Your task to perform on an android device: check battery use Image 0: 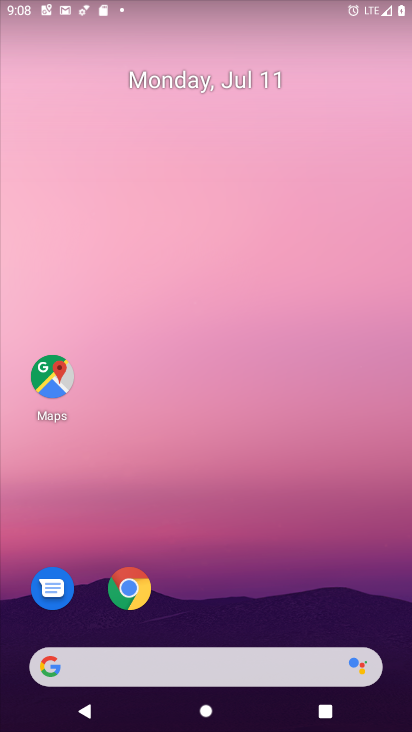
Step 0: drag from (165, 670) to (313, 171)
Your task to perform on an android device: check battery use Image 1: 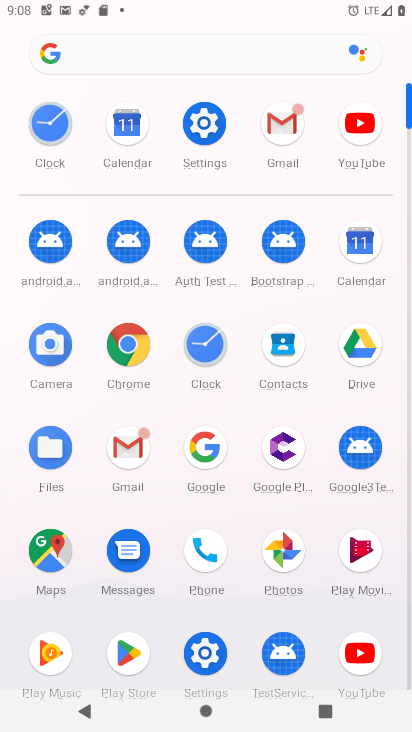
Step 1: click (186, 119)
Your task to perform on an android device: check battery use Image 2: 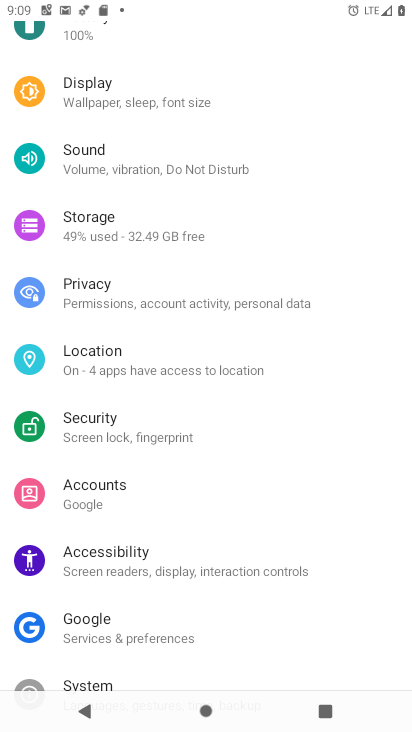
Step 2: drag from (297, 120) to (276, 396)
Your task to perform on an android device: check battery use Image 3: 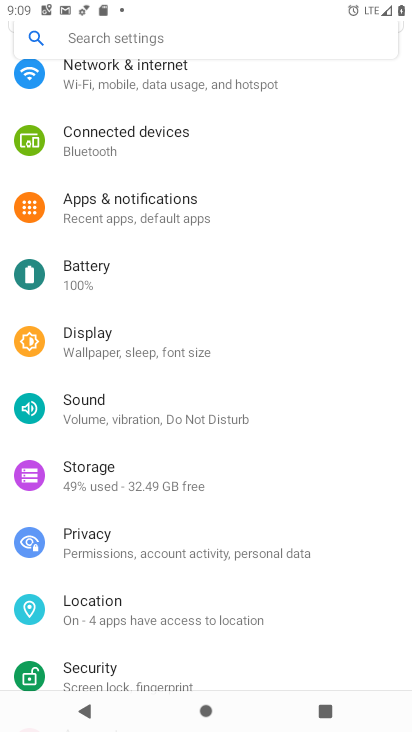
Step 3: click (86, 275)
Your task to perform on an android device: check battery use Image 4: 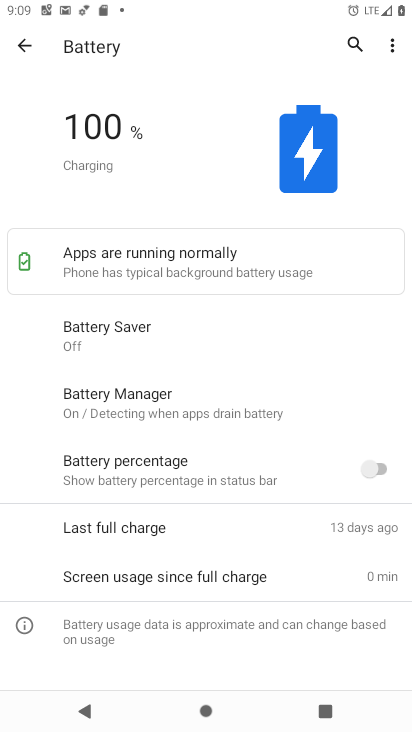
Step 4: click (394, 42)
Your task to perform on an android device: check battery use Image 5: 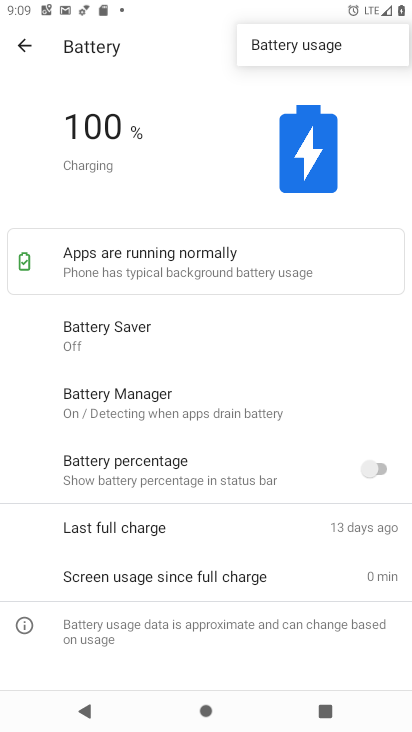
Step 5: click (320, 51)
Your task to perform on an android device: check battery use Image 6: 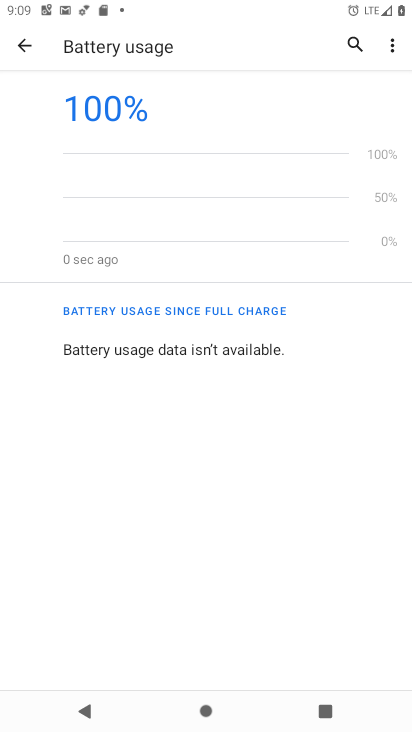
Step 6: task complete